Your task to perform on an android device: Open network settings Image 0: 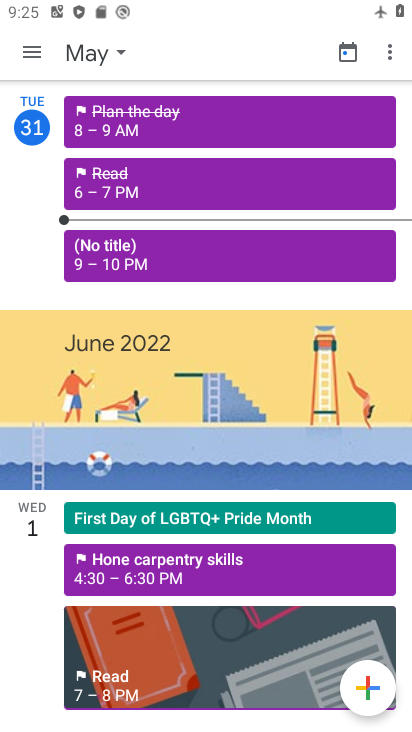
Step 0: press home button
Your task to perform on an android device: Open network settings Image 1: 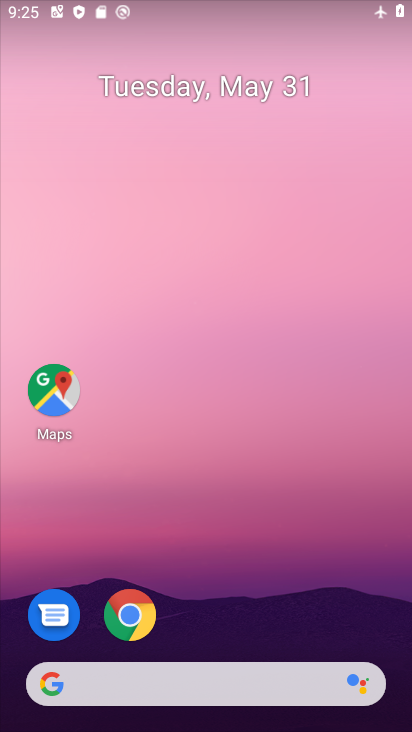
Step 1: drag from (378, 625) to (342, 69)
Your task to perform on an android device: Open network settings Image 2: 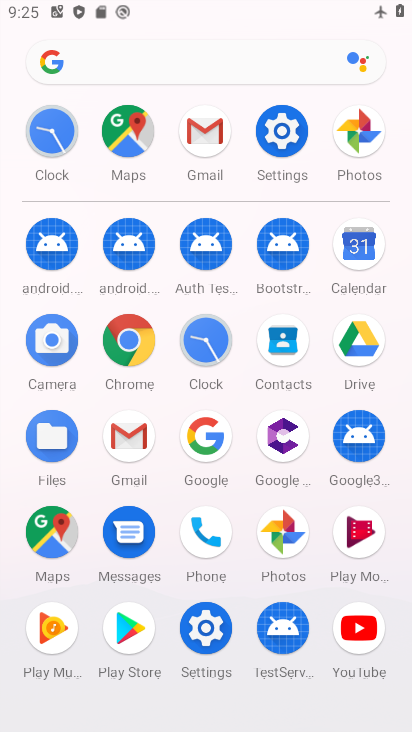
Step 2: click (208, 630)
Your task to perform on an android device: Open network settings Image 3: 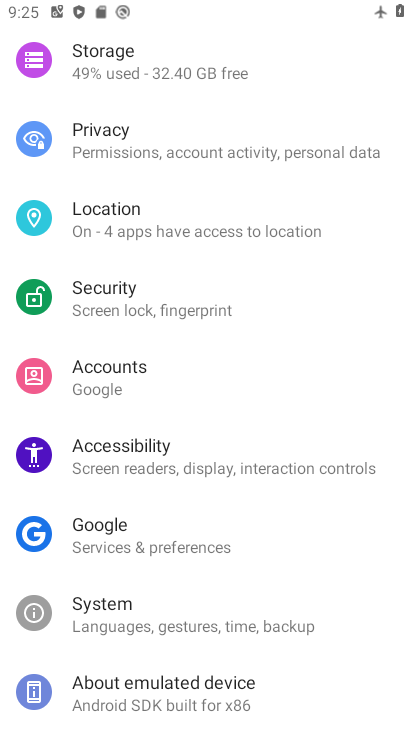
Step 3: drag from (315, 394) to (307, 637)
Your task to perform on an android device: Open network settings Image 4: 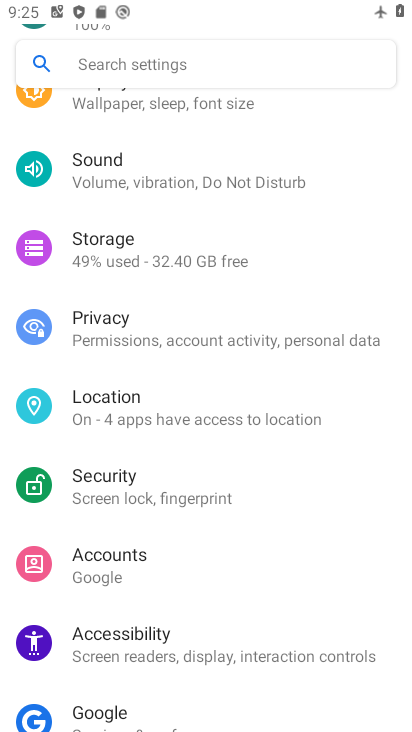
Step 4: drag from (370, 148) to (344, 458)
Your task to perform on an android device: Open network settings Image 5: 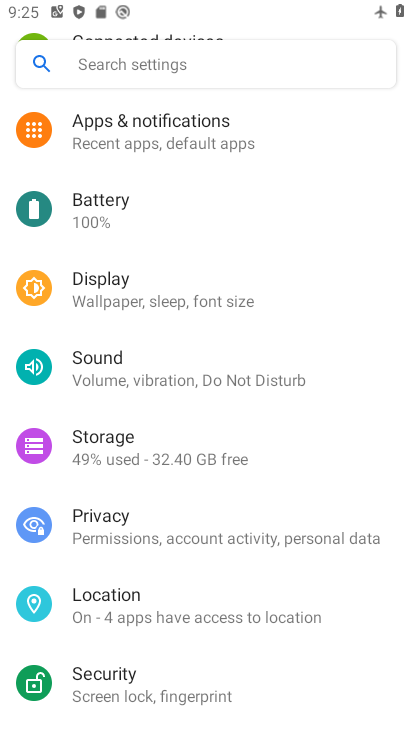
Step 5: drag from (327, 148) to (322, 470)
Your task to perform on an android device: Open network settings Image 6: 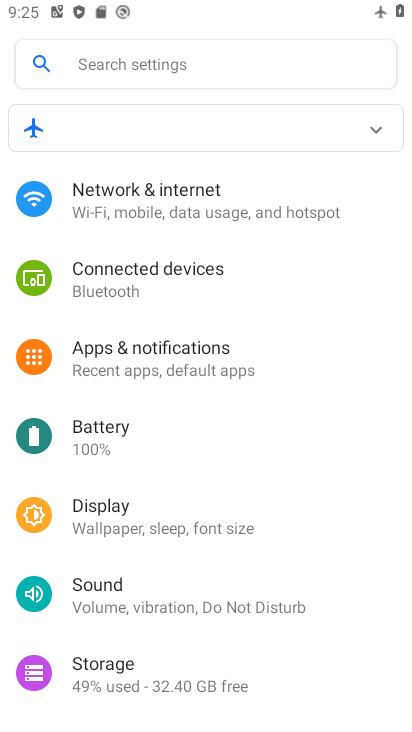
Step 6: click (150, 197)
Your task to perform on an android device: Open network settings Image 7: 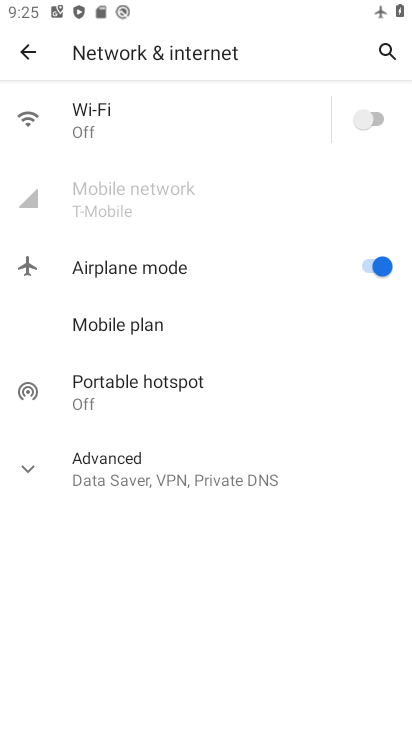
Step 7: click (25, 462)
Your task to perform on an android device: Open network settings Image 8: 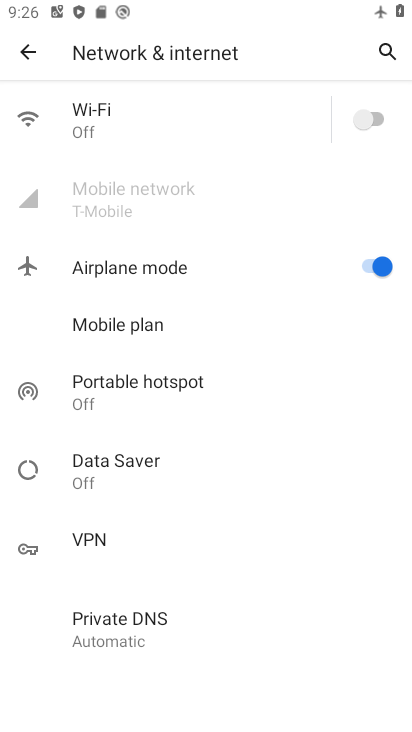
Step 8: click (84, 120)
Your task to perform on an android device: Open network settings Image 9: 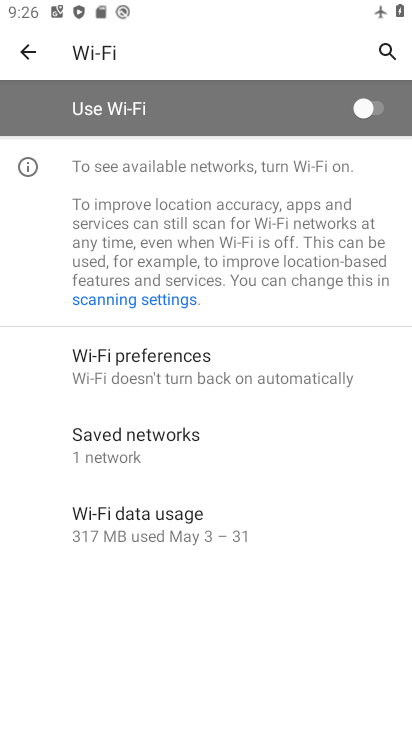
Step 9: task complete